Your task to perform on an android device: change the clock display to digital Image 0: 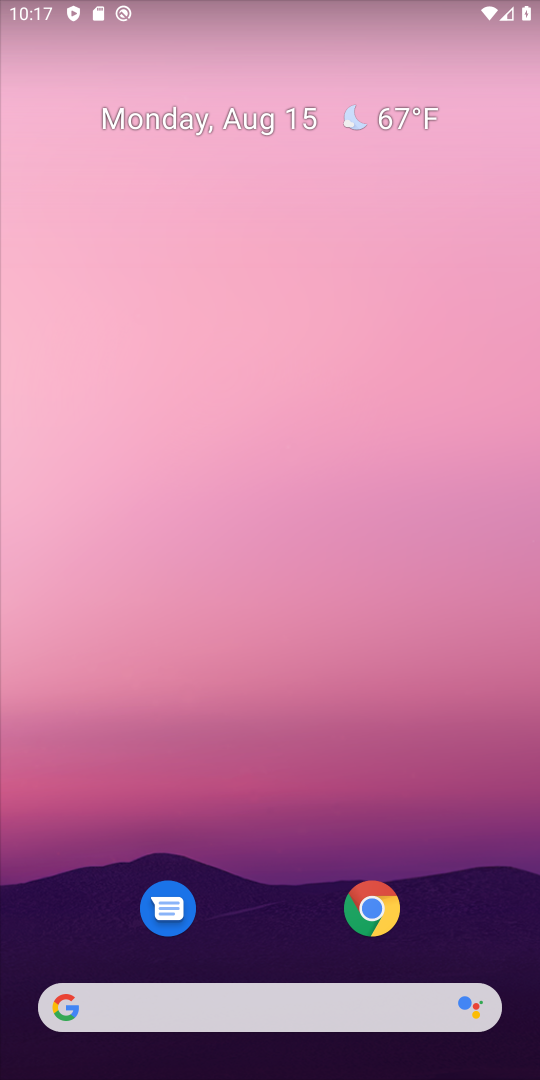
Step 0: drag from (252, 955) to (325, 43)
Your task to perform on an android device: change the clock display to digital Image 1: 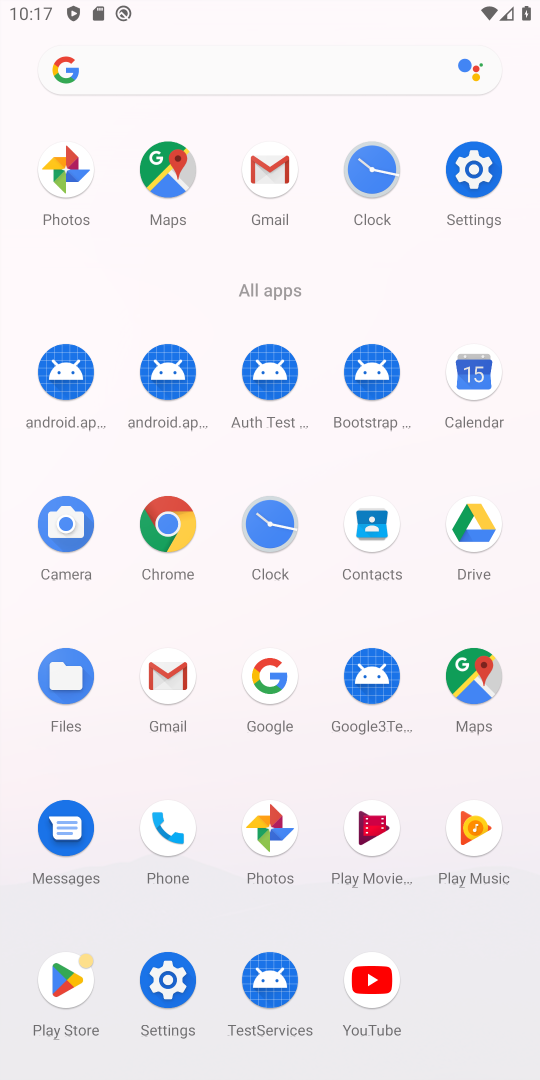
Step 1: click (379, 221)
Your task to perform on an android device: change the clock display to digital Image 2: 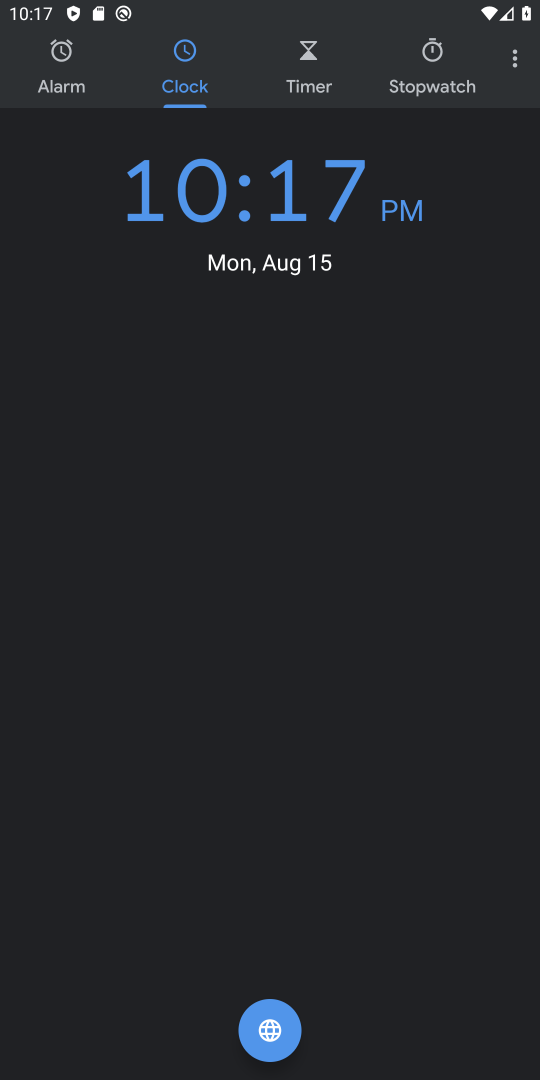
Step 2: click (502, 63)
Your task to perform on an android device: change the clock display to digital Image 3: 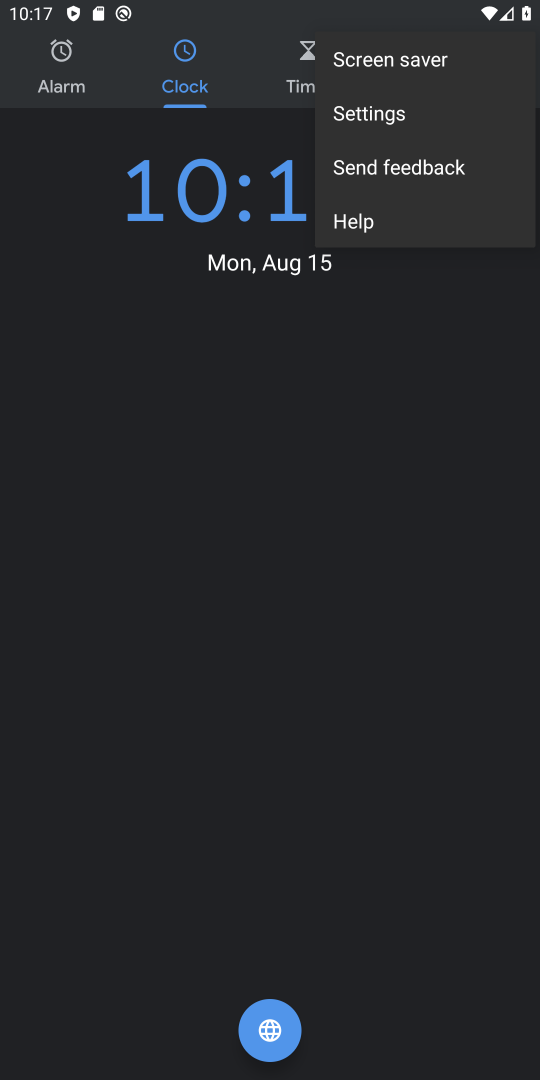
Step 3: click (372, 111)
Your task to perform on an android device: change the clock display to digital Image 4: 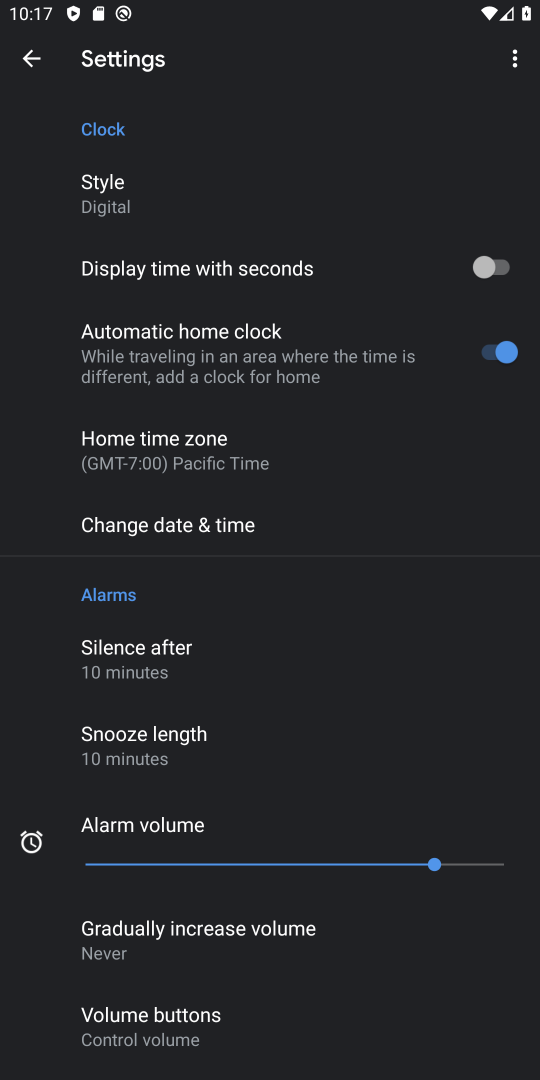
Step 4: task complete